Your task to perform on an android device: toggle location history Image 0: 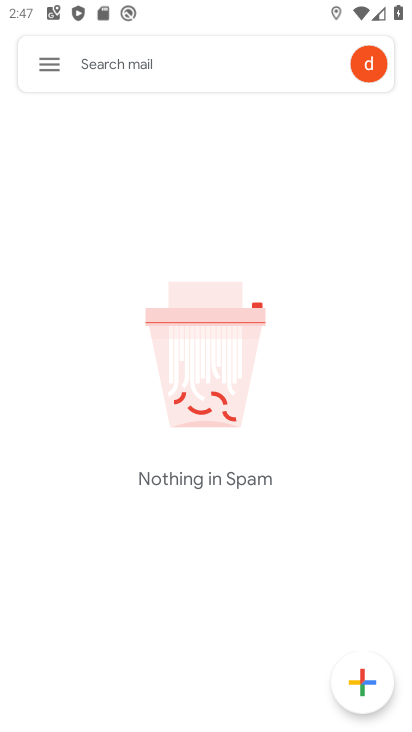
Step 0: press home button
Your task to perform on an android device: toggle location history Image 1: 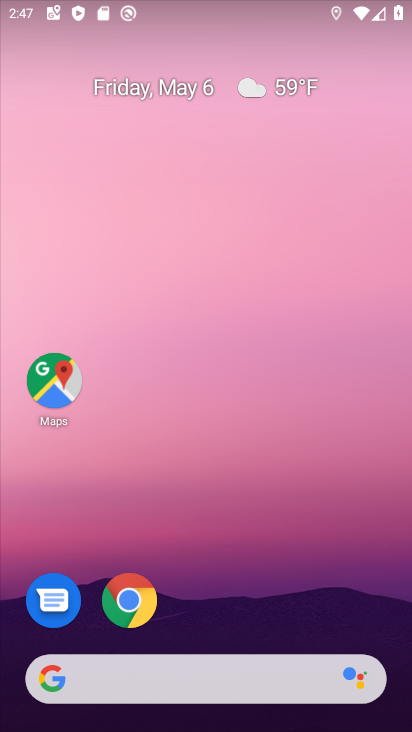
Step 1: drag from (249, 585) to (284, 44)
Your task to perform on an android device: toggle location history Image 2: 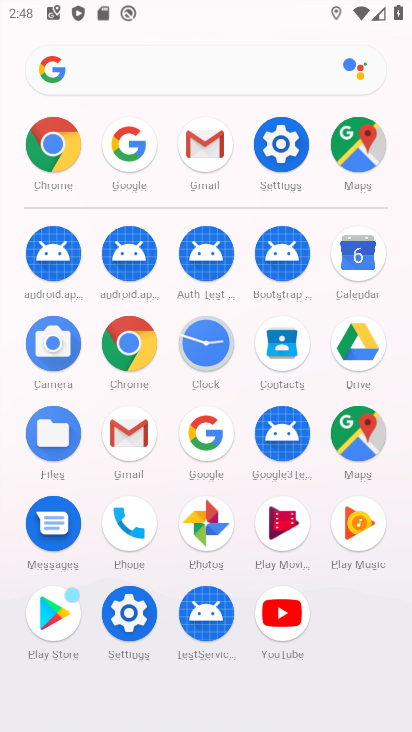
Step 2: click (281, 144)
Your task to perform on an android device: toggle location history Image 3: 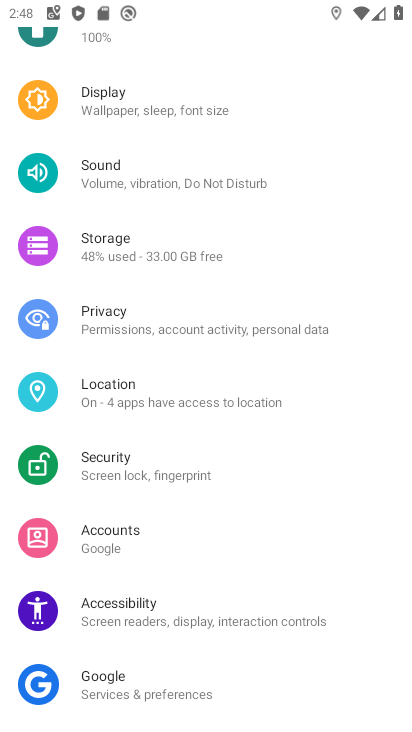
Step 3: click (141, 400)
Your task to perform on an android device: toggle location history Image 4: 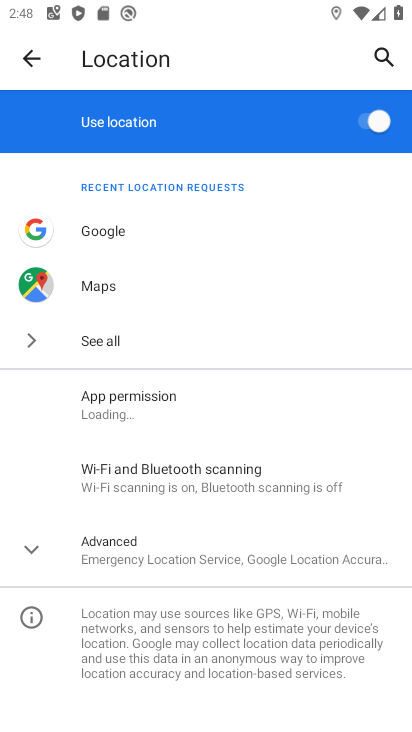
Step 4: click (110, 550)
Your task to perform on an android device: toggle location history Image 5: 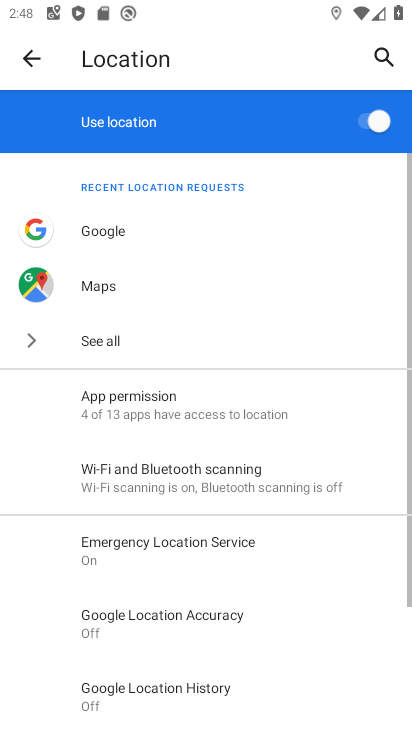
Step 5: drag from (225, 532) to (204, 165)
Your task to perform on an android device: toggle location history Image 6: 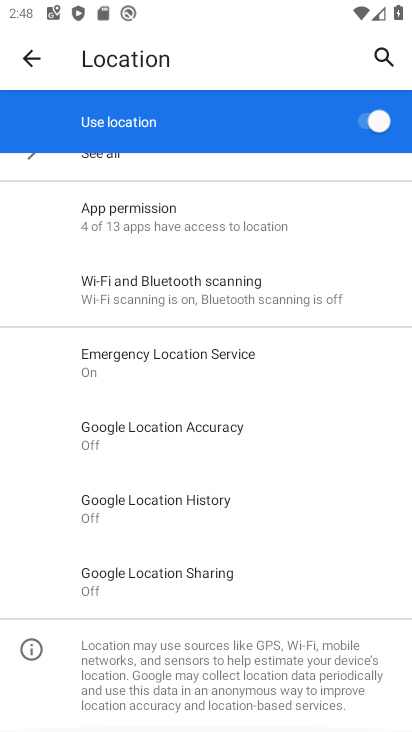
Step 6: click (153, 517)
Your task to perform on an android device: toggle location history Image 7: 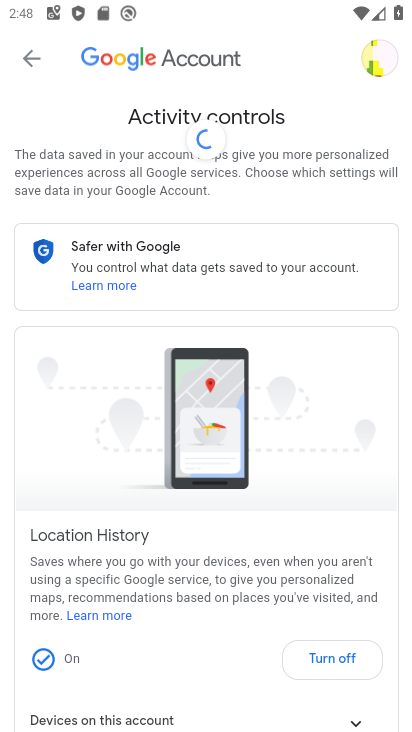
Step 7: click (322, 662)
Your task to perform on an android device: toggle location history Image 8: 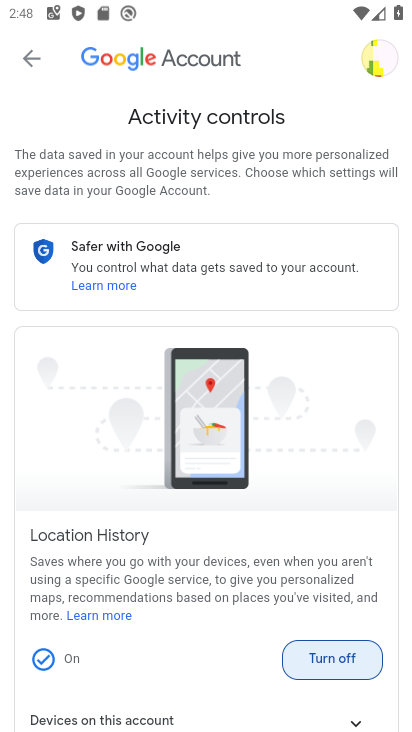
Step 8: click (322, 662)
Your task to perform on an android device: toggle location history Image 9: 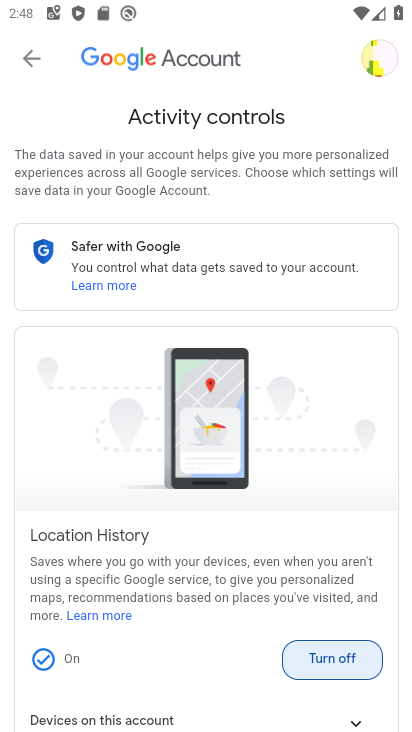
Step 9: click (316, 658)
Your task to perform on an android device: toggle location history Image 10: 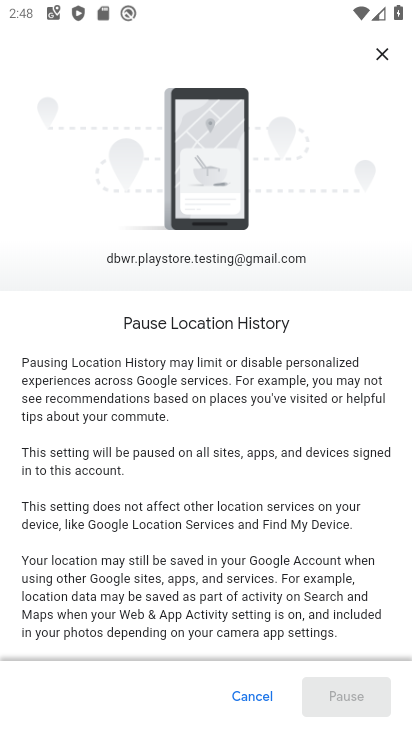
Step 10: drag from (320, 497) to (354, 11)
Your task to perform on an android device: toggle location history Image 11: 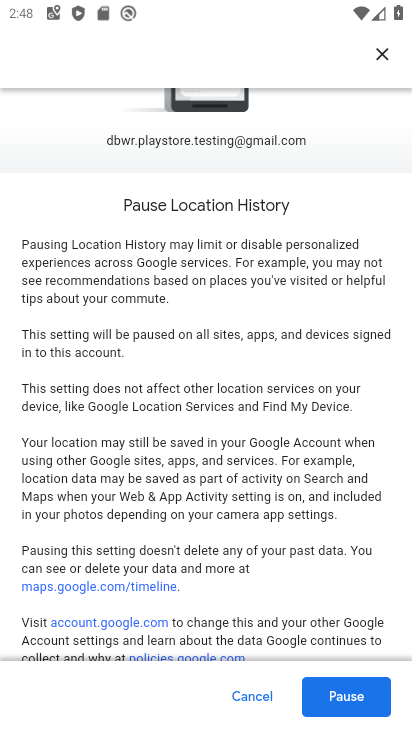
Step 11: click (337, 697)
Your task to perform on an android device: toggle location history Image 12: 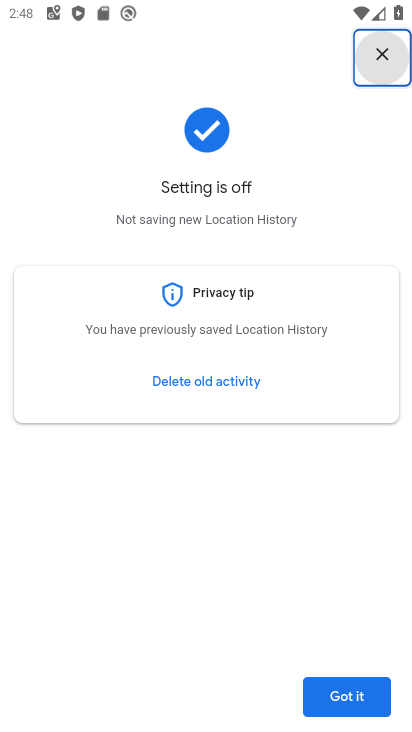
Step 12: click (337, 697)
Your task to perform on an android device: toggle location history Image 13: 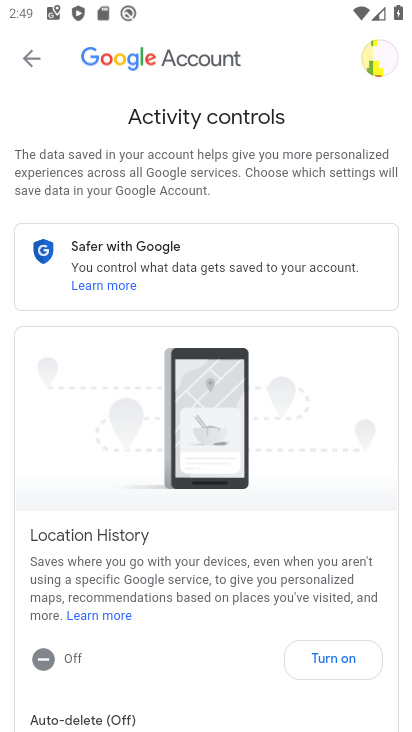
Step 13: task complete